Your task to perform on an android device: Open Chrome and go to the settings page Image 0: 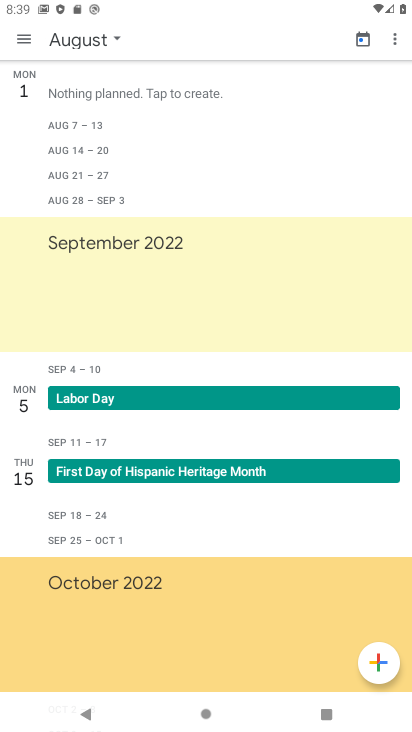
Step 0: press home button
Your task to perform on an android device: Open Chrome and go to the settings page Image 1: 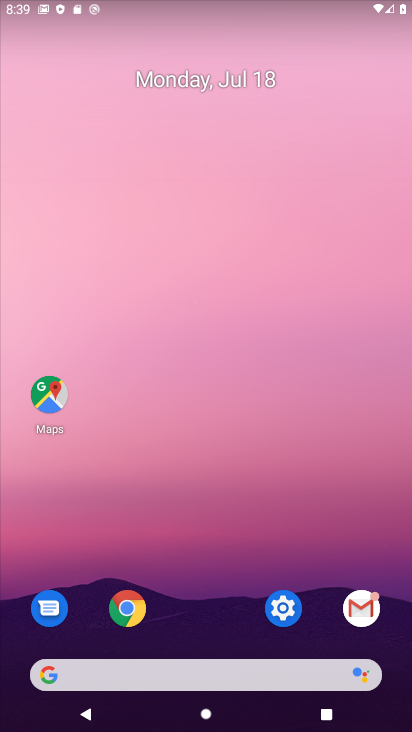
Step 1: click (139, 602)
Your task to perform on an android device: Open Chrome and go to the settings page Image 2: 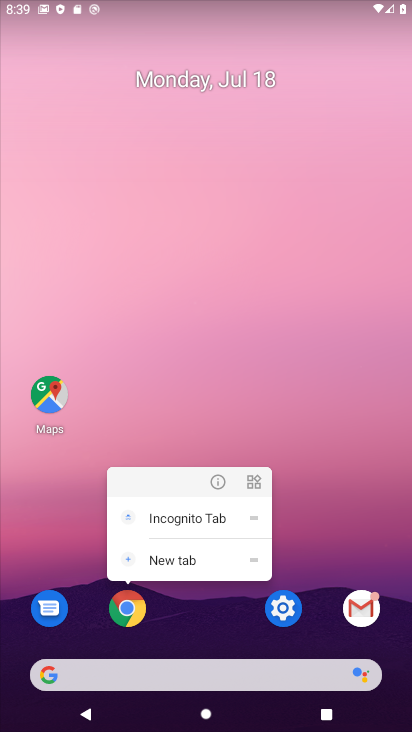
Step 2: click (123, 616)
Your task to perform on an android device: Open Chrome and go to the settings page Image 3: 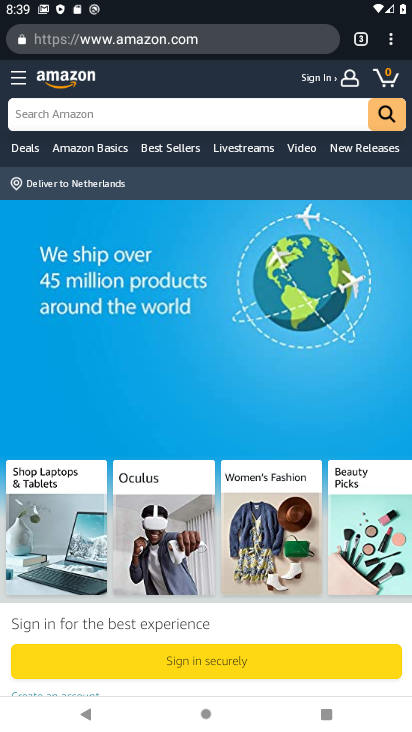
Step 3: click (395, 46)
Your task to perform on an android device: Open Chrome and go to the settings page Image 4: 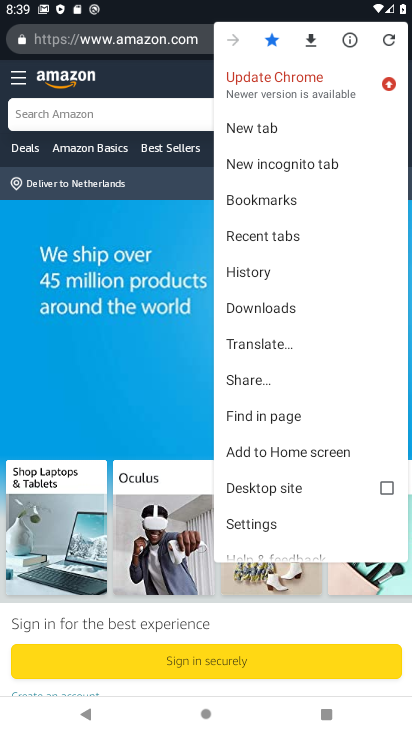
Step 4: click (256, 521)
Your task to perform on an android device: Open Chrome and go to the settings page Image 5: 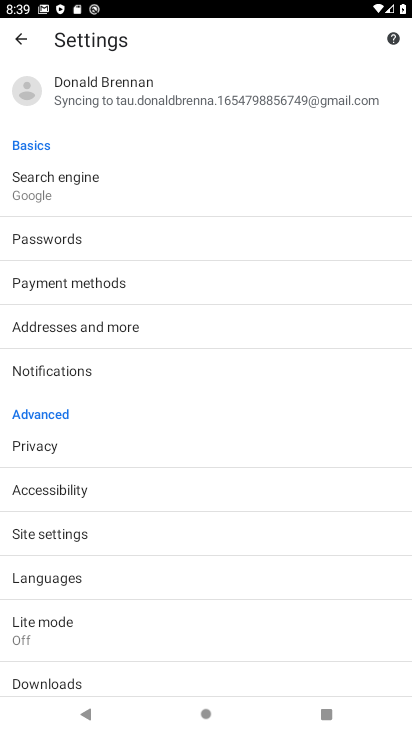
Step 5: task complete